Your task to perform on an android device: turn off smart reply in the gmail app Image 0: 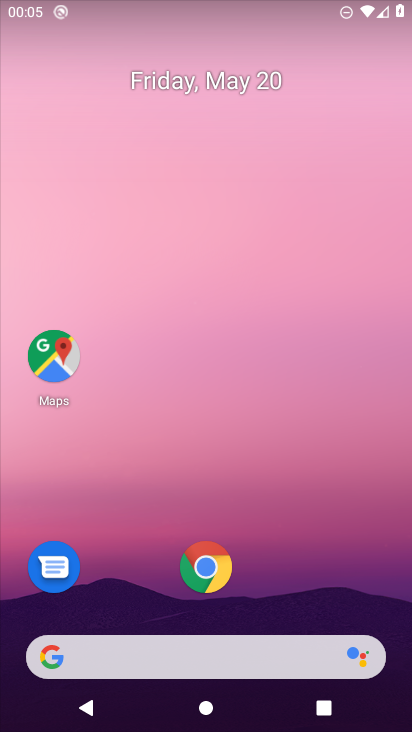
Step 0: drag from (256, 616) to (323, 35)
Your task to perform on an android device: turn off smart reply in the gmail app Image 1: 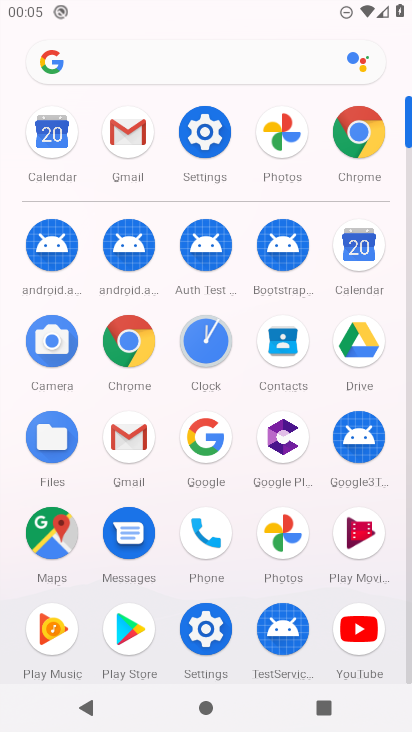
Step 1: click (126, 430)
Your task to perform on an android device: turn off smart reply in the gmail app Image 2: 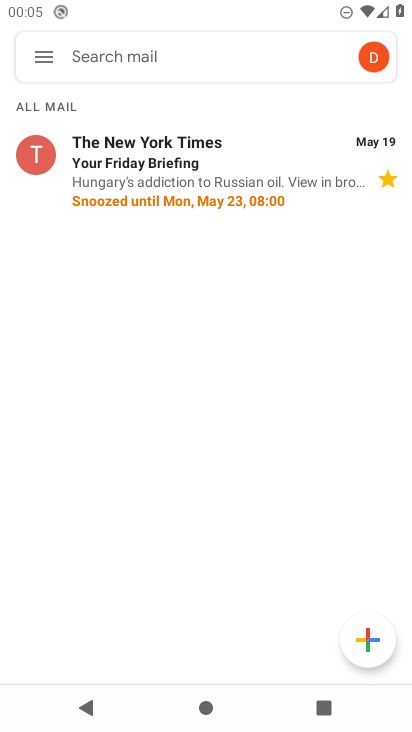
Step 2: click (45, 48)
Your task to perform on an android device: turn off smart reply in the gmail app Image 3: 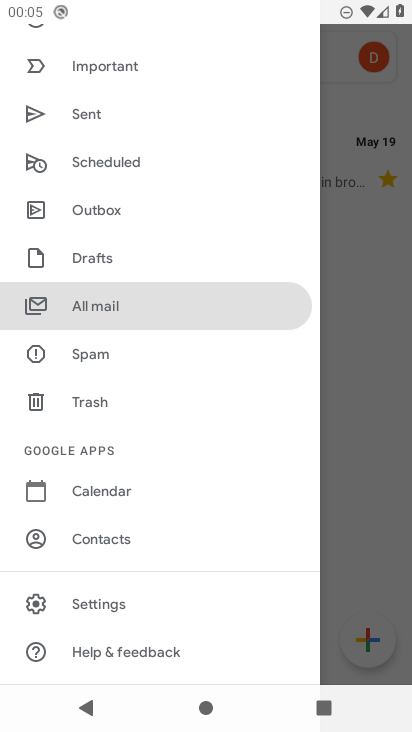
Step 3: click (137, 603)
Your task to perform on an android device: turn off smart reply in the gmail app Image 4: 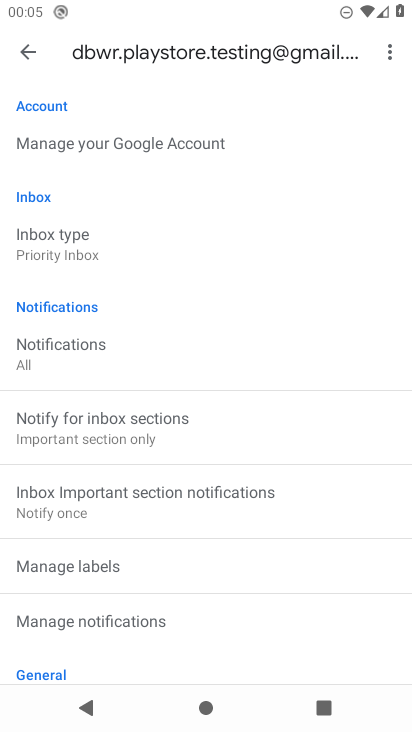
Step 4: task complete